Your task to perform on an android device: Go to location settings Image 0: 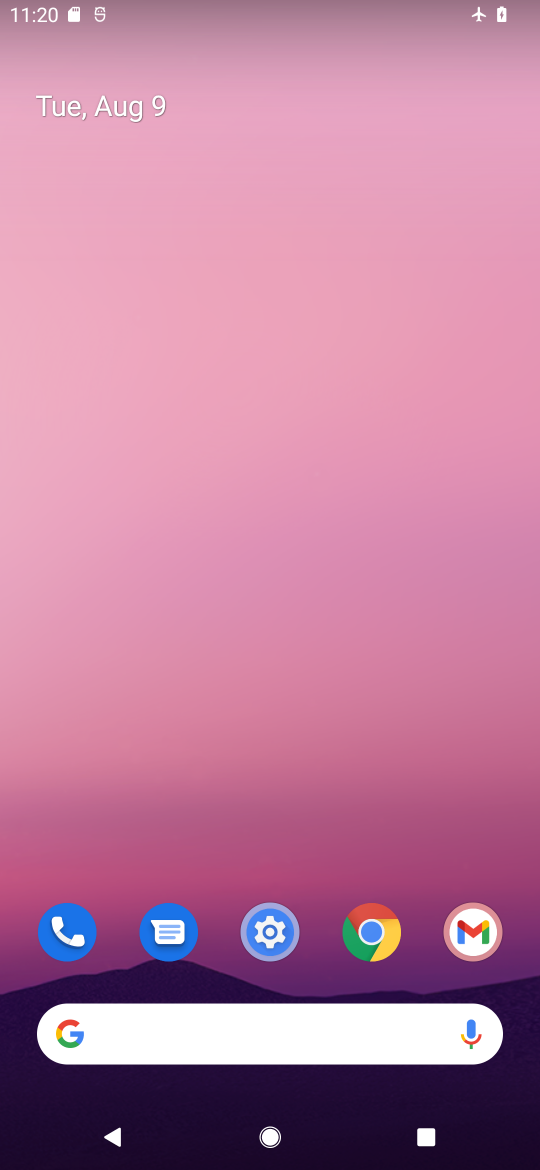
Step 0: drag from (236, 986) to (133, 180)
Your task to perform on an android device: Go to location settings Image 1: 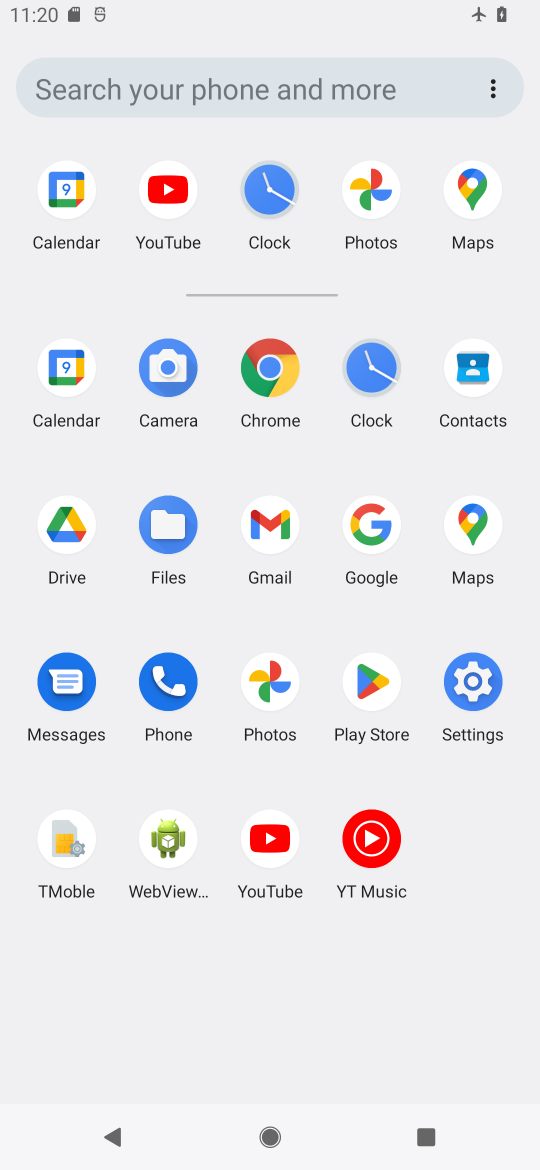
Step 1: click (476, 685)
Your task to perform on an android device: Go to location settings Image 2: 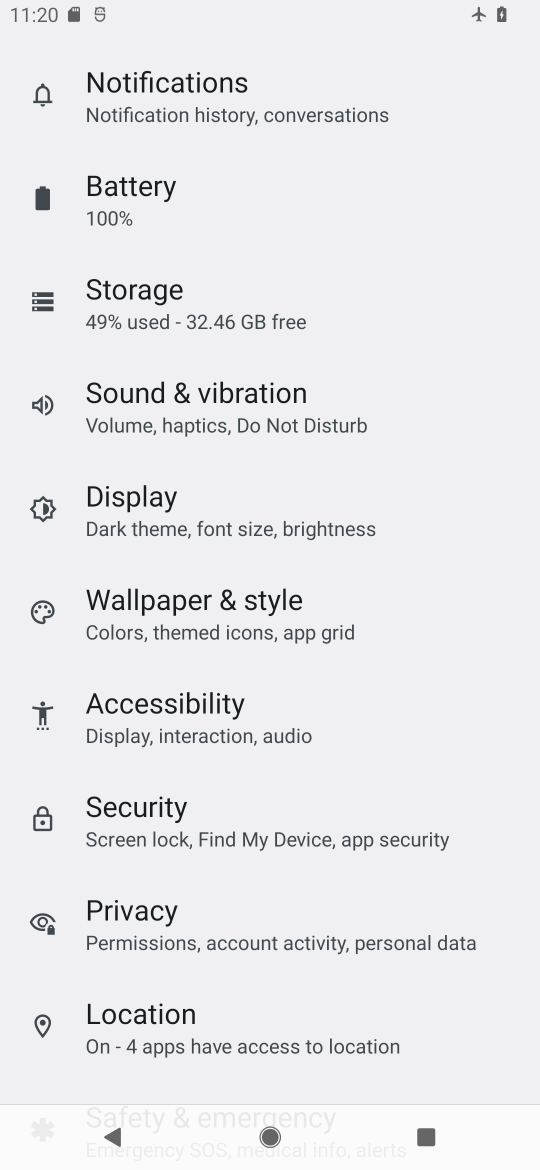
Step 2: click (189, 1015)
Your task to perform on an android device: Go to location settings Image 3: 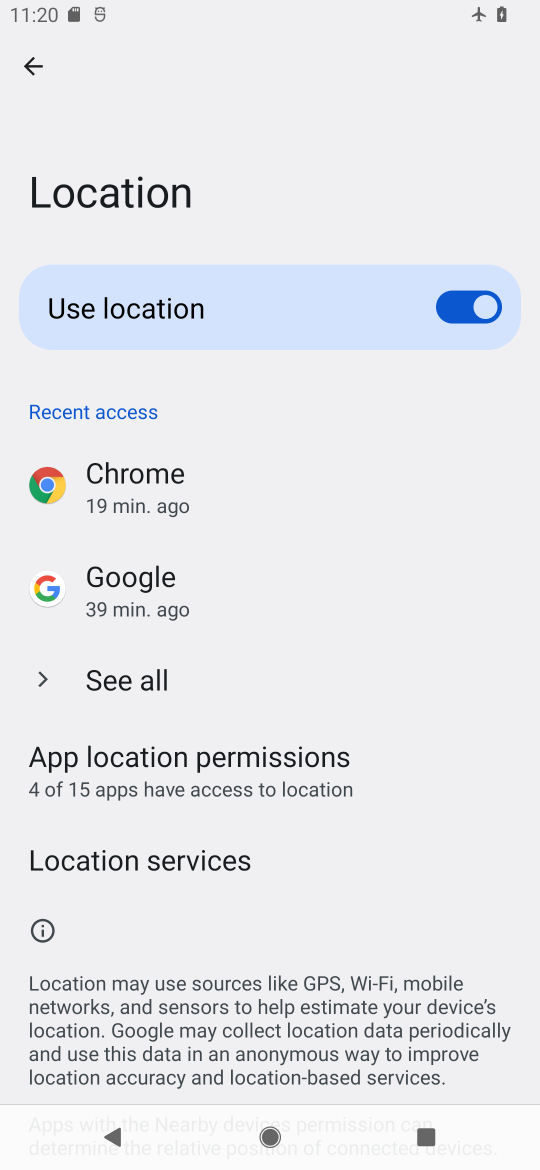
Step 3: task complete